Your task to perform on an android device: Open settings Image 0: 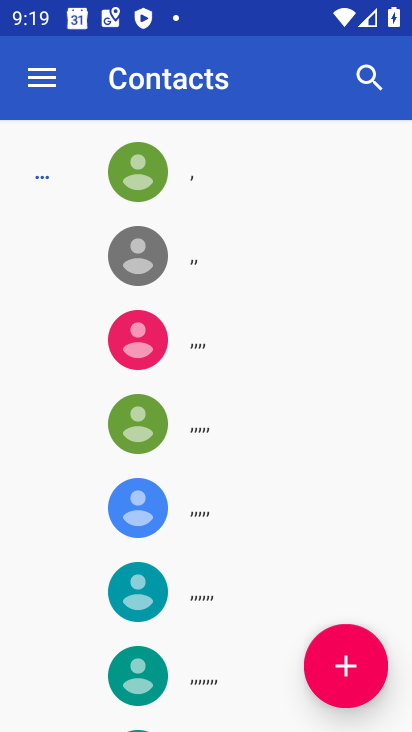
Step 0: press back button
Your task to perform on an android device: Open settings Image 1: 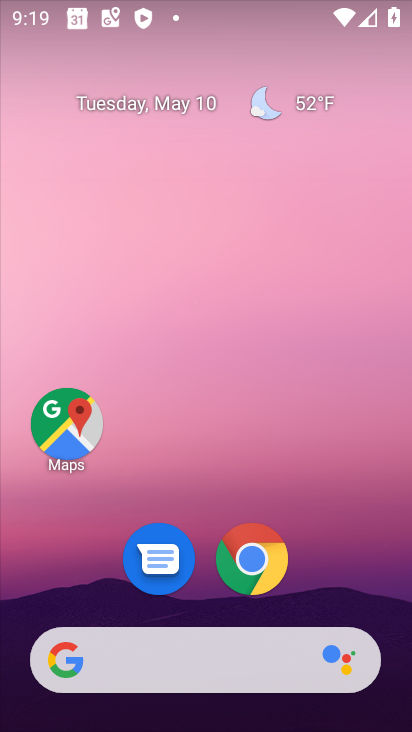
Step 1: drag from (332, 588) to (220, 8)
Your task to perform on an android device: Open settings Image 2: 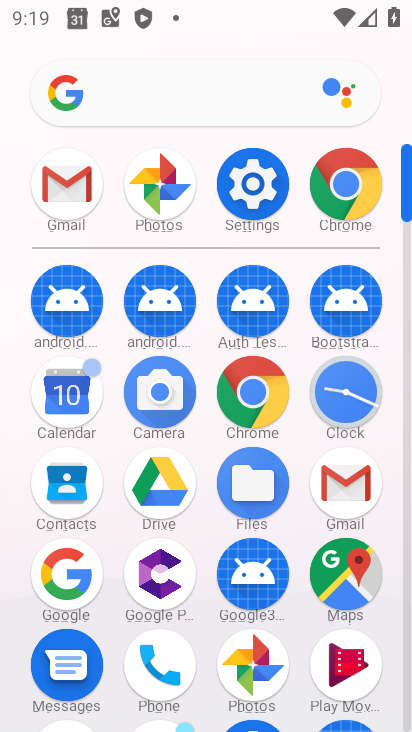
Step 2: click (257, 186)
Your task to perform on an android device: Open settings Image 3: 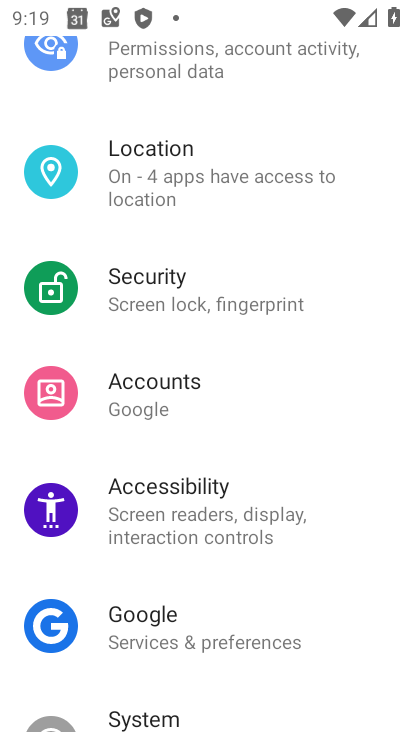
Step 3: task complete